Your task to perform on an android device: Is it going to rain this weekend? Image 0: 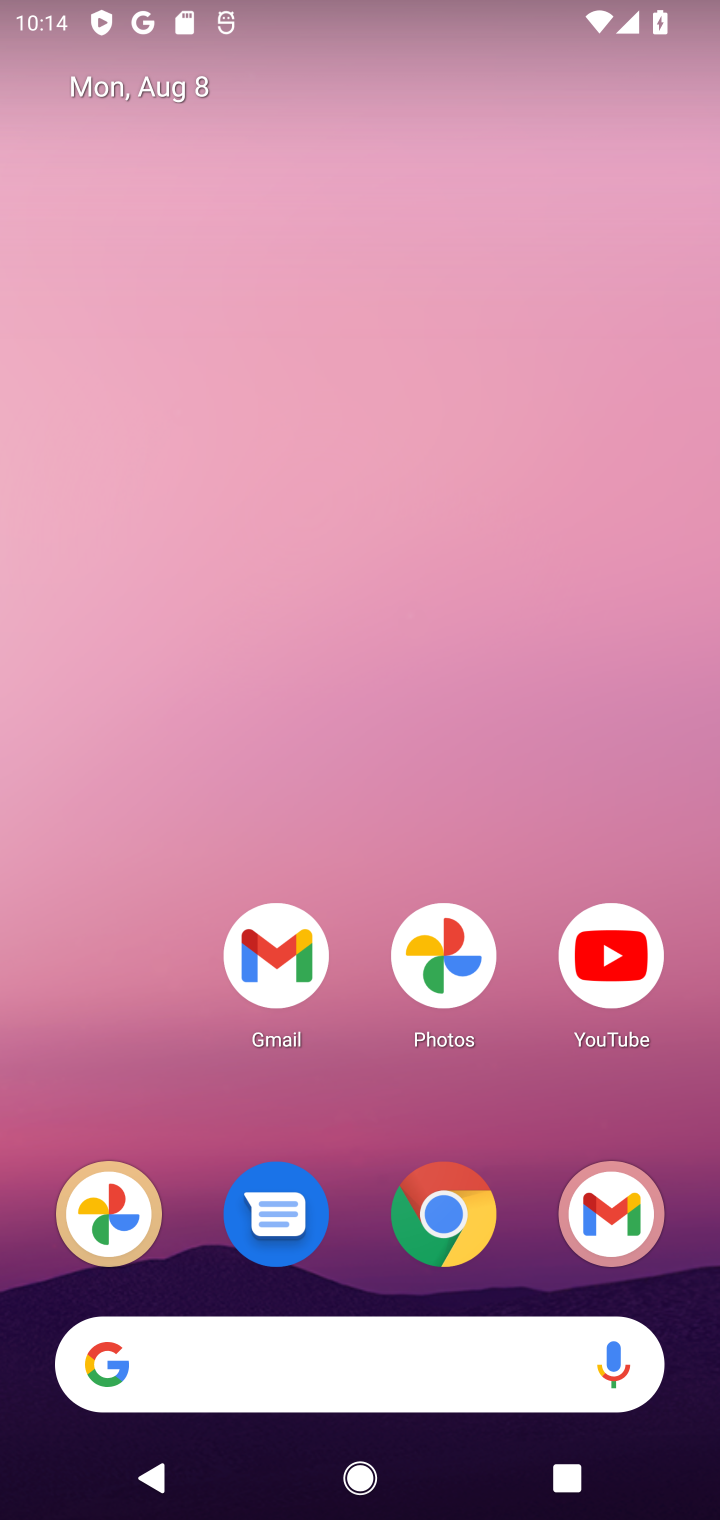
Step 0: click (205, 1335)
Your task to perform on an android device: Is it going to rain this weekend? Image 1: 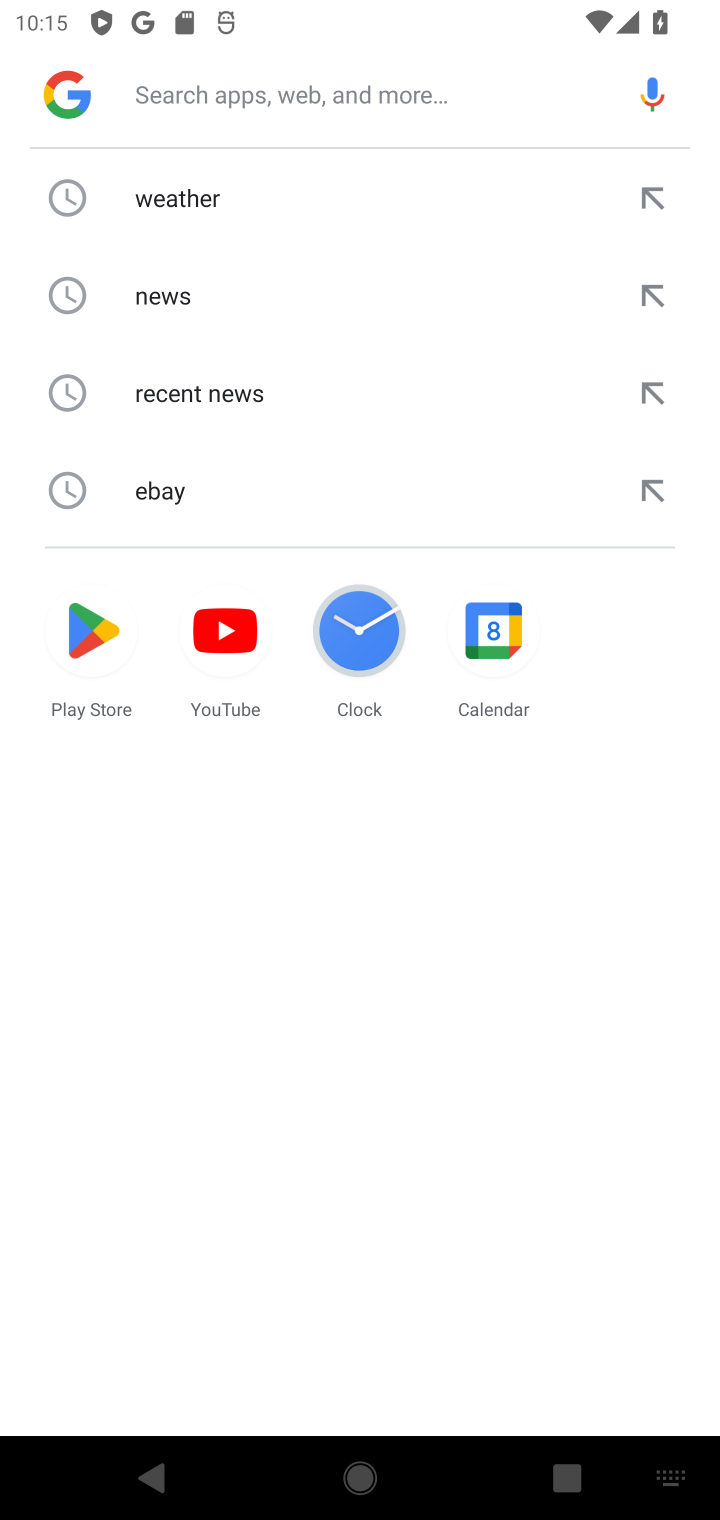
Step 1: type "Is it going to rain this weekend?"
Your task to perform on an android device: Is it going to rain this weekend? Image 2: 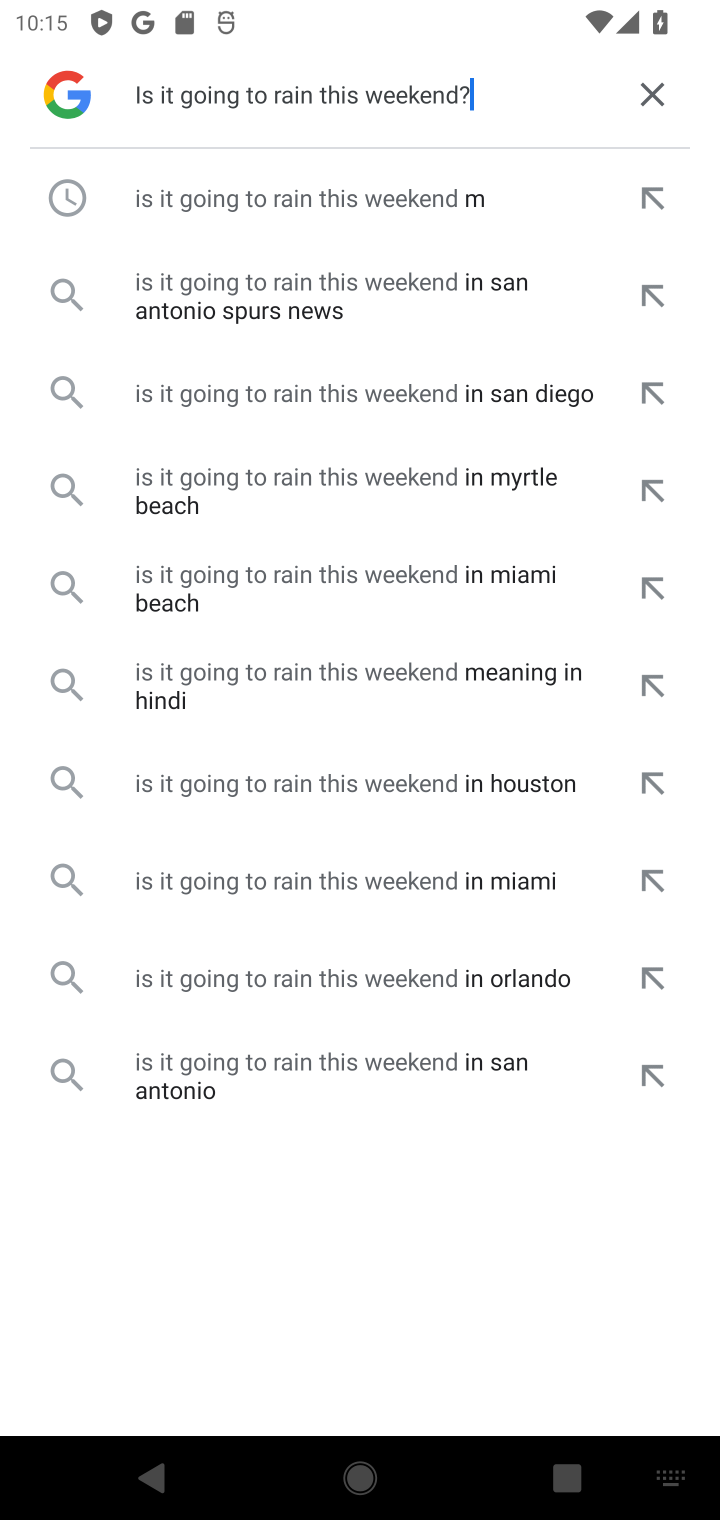
Step 2: type ""
Your task to perform on an android device: Is it going to rain this weekend? Image 3: 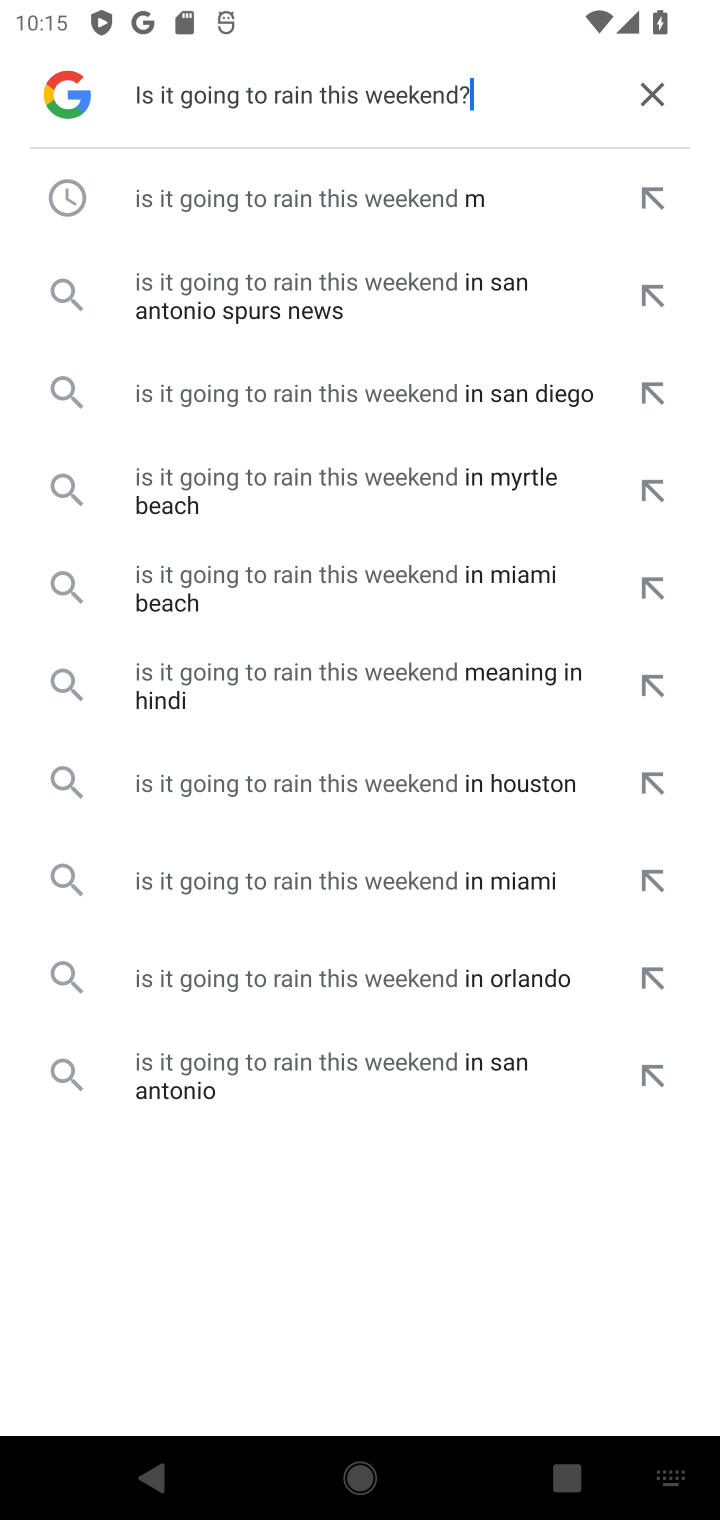
Step 3: task complete